Your task to perform on an android device: Open network settings Image 0: 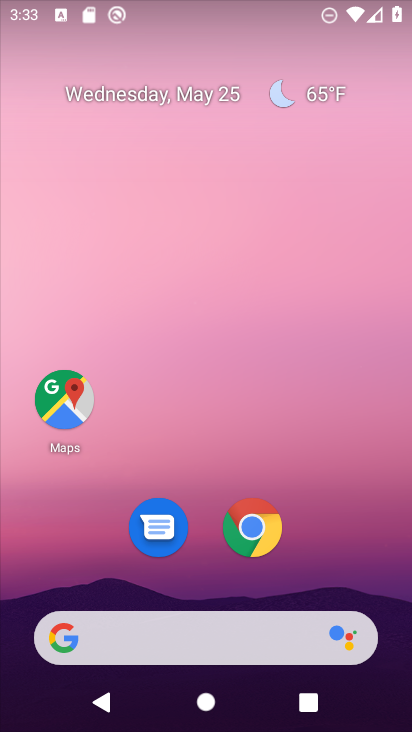
Step 0: drag from (326, 637) to (354, 30)
Your task to perform on an android device: Open network settings Image 1: 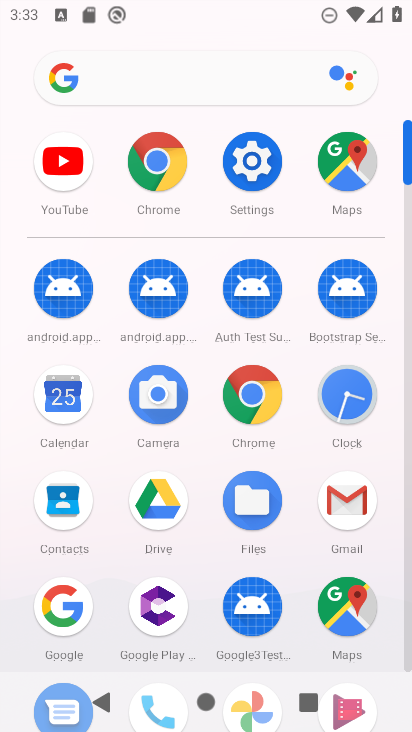
Step 1: click (256, 173)
Your task to perform on an android device: Open network settings Image 2: 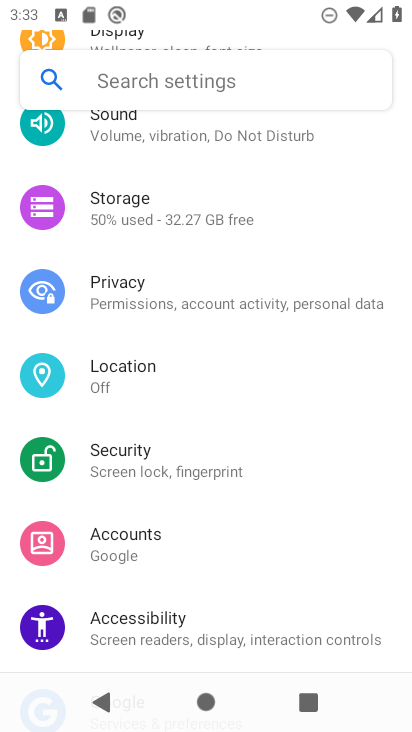
Step 2: drag from (216, 255) to (226, 659)
Your task to perform on an android device: Open network settings Image 3: 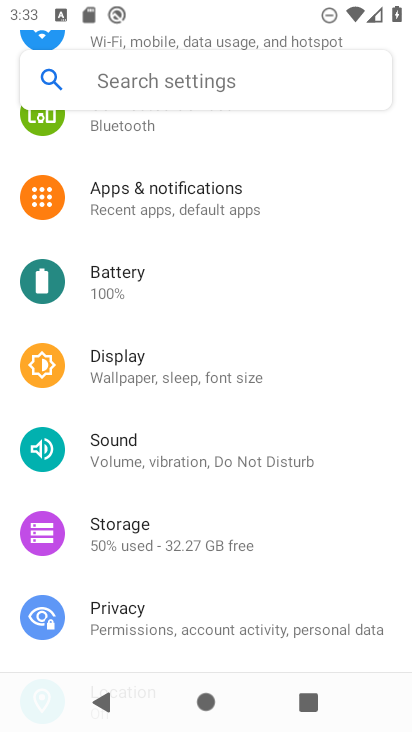
Step 3: drag from (209, 188) to (223, 630)
Your task to perform on an android device: Open network settings Image 4: 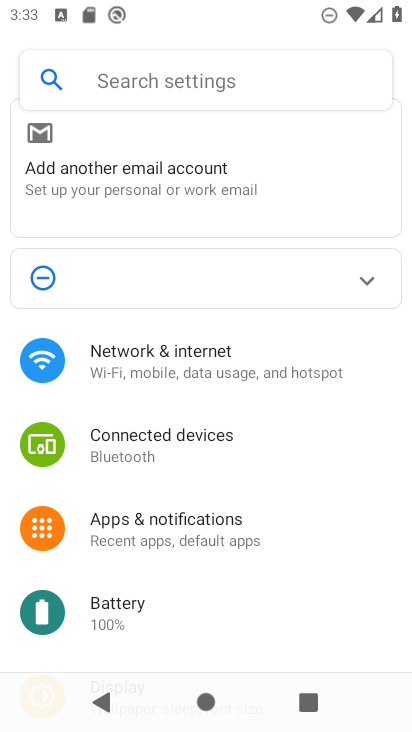
Step 4: click (213, 384)
Your task to perform on an android device: Open network settings Image 5: 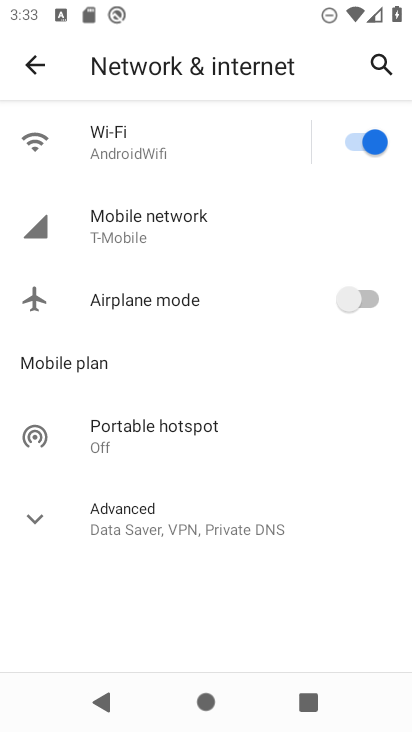
Step 5: task complete